Your task to perform on an android device: Open the calendar and show me this week's events? Image 0: 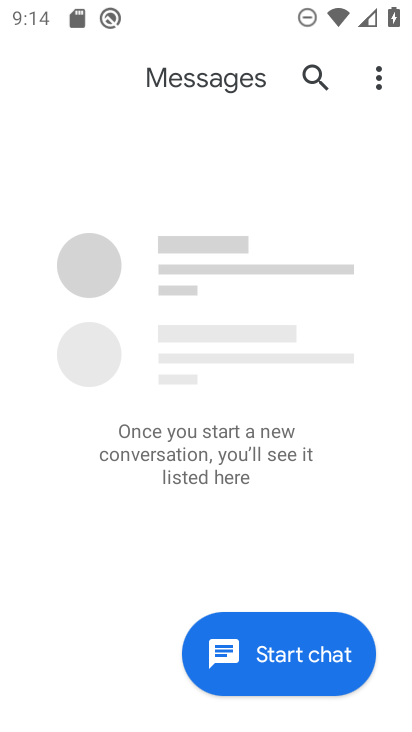
Step 0: press back button
Your task to perform on an android device: Open the calendar and show me this week's events? Image 1: 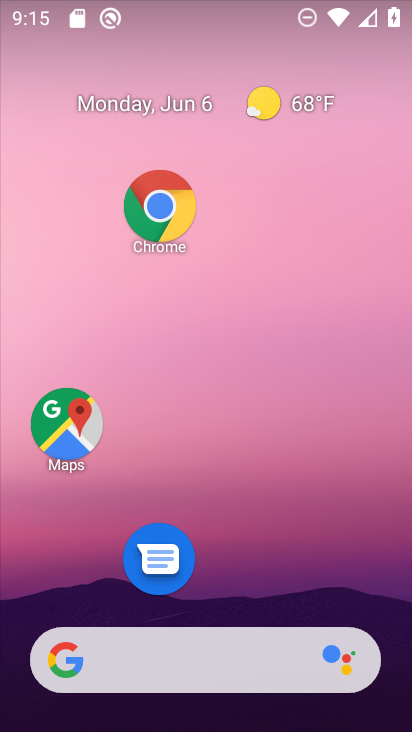
Step 1: drag from (286, 673) to (281, 173)
Your task to perform on an android device: Open the calendar and show me this week's events? Image 2: 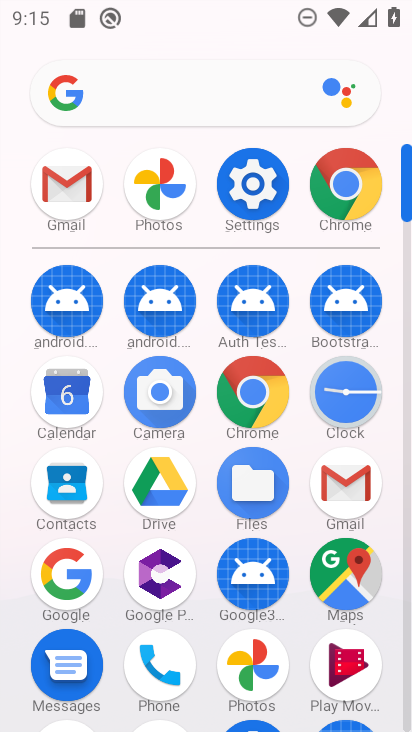
Step 2: click (54, 407)
Your task to perform on an android device: Open the calendar and show me this week's events? Image 3: 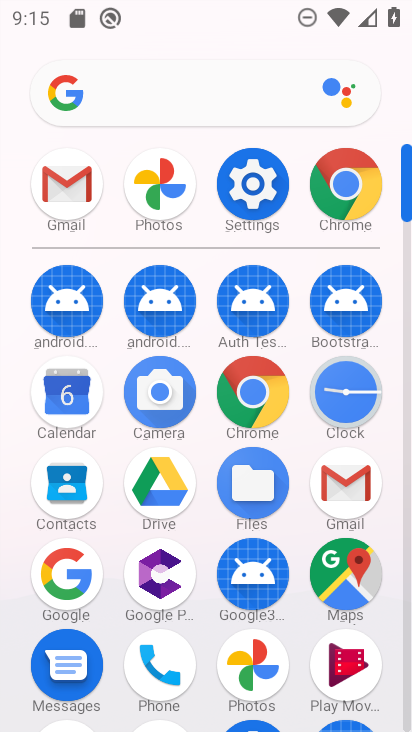
Step 3: click (54, 407)
Your task to perform on an android device: Open the calendar and show me this week's events? Image 4: 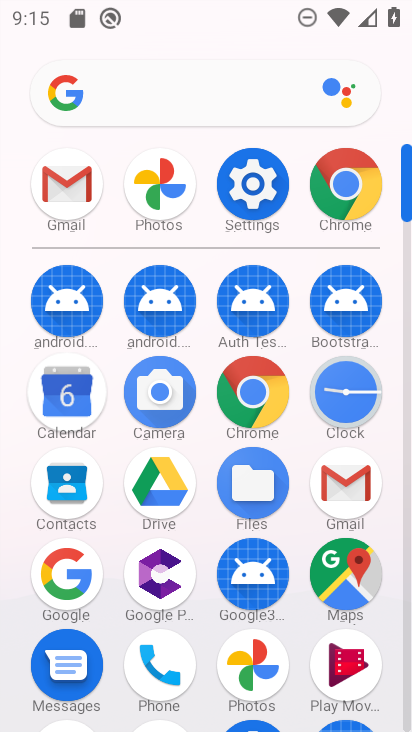
Step 4: click (55, 404)
Your task to perform on an android device: Open the calendar and show me this week's events? Image 5: 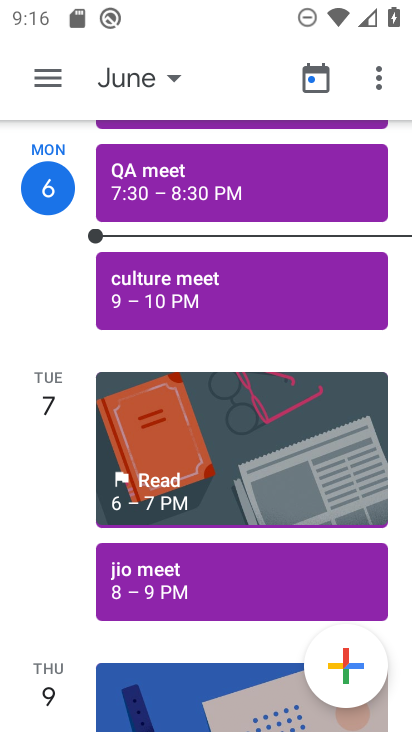
Step 5: drag from (164, 524) to (147, 207)
Your task to perform on an android device: Open the calendar and show me this week's events? Image 6: 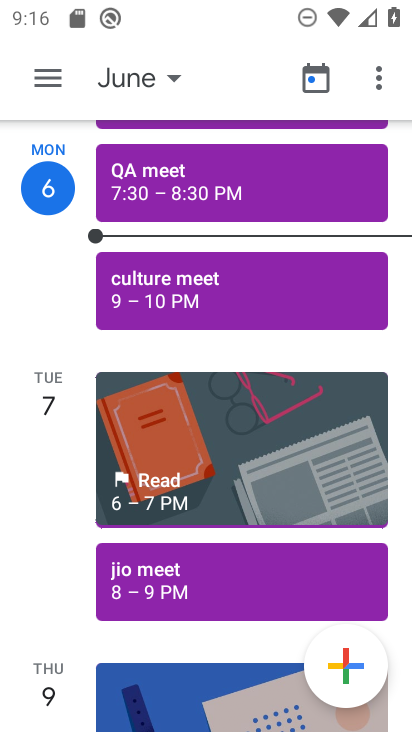
Step 6: drag from (220, 439) to (243, 200)
Your task to perform on an android device: Open the calendar and show me this week's events? Image 7: 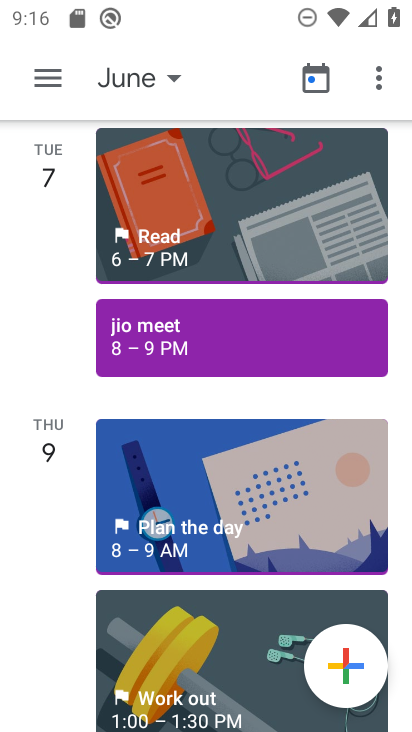
Step 7: drag from (224, 470) to (223, 276)
Your task to perform on an android device: Open the calendar and show me this week's events? Image 8: 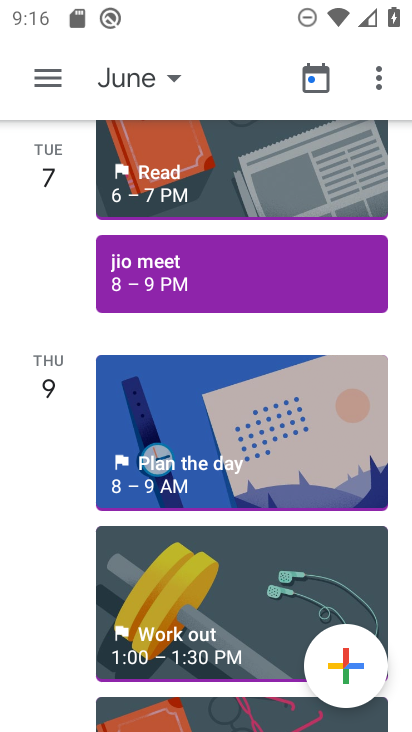
Step 8: click (163, 176)
Your task to perform on an android device: Open the calendar and show me this week's events? Image 9: 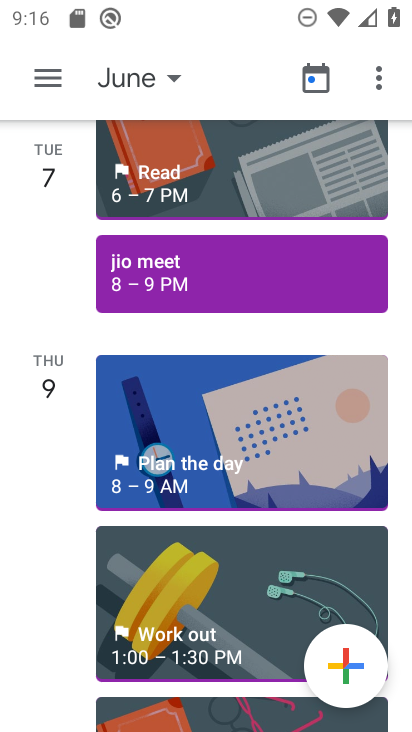
Step 9: click (164, 176)
Your task to perform on an android device: Open the calendar and show me this week's events? Image 10: 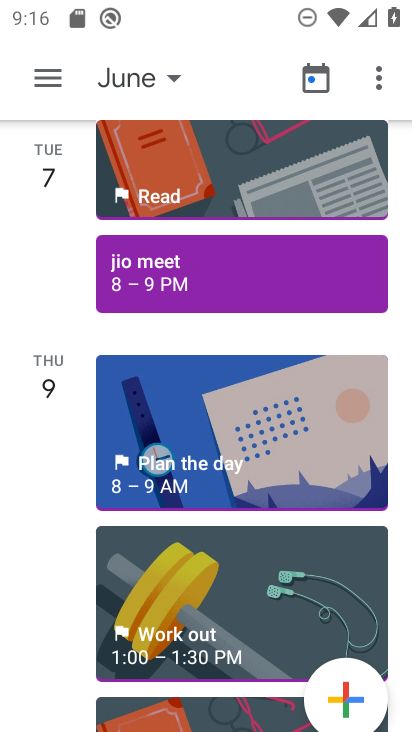
Step 10: click (164, 176)
Your task to perform on an android device: Open the calendar and show me this week's events? Image 11: 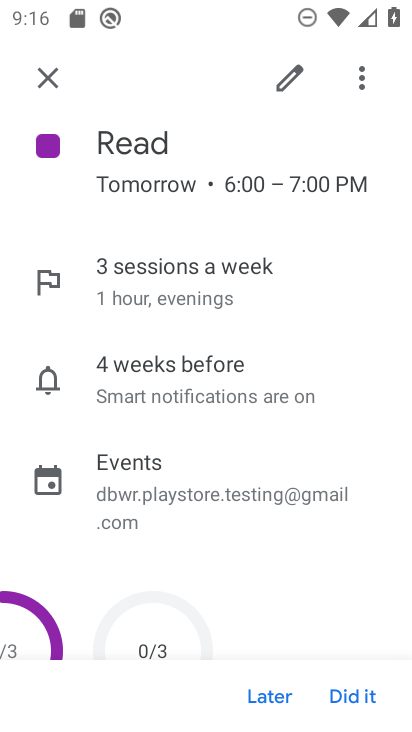
Step 11: task complete